Your task to perform on an android device: delete browsing data in the chrome app Image 0: 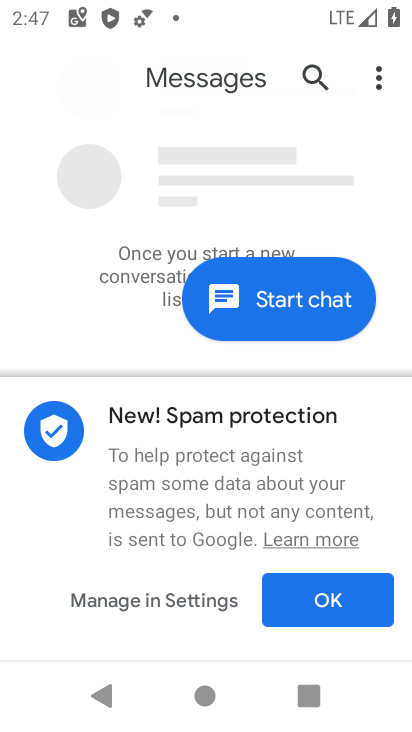
Step 0: press home button
Your task to perform on an android device: delete browsing data in the chrome app Image 1: 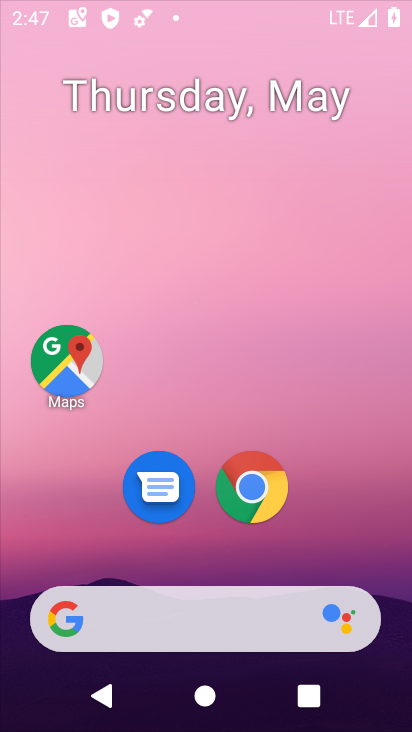
Step 1: drag from (140, 607) to (216, 157)
Your task to perform on an android device: delete browsing data in the chrome app Image 2: 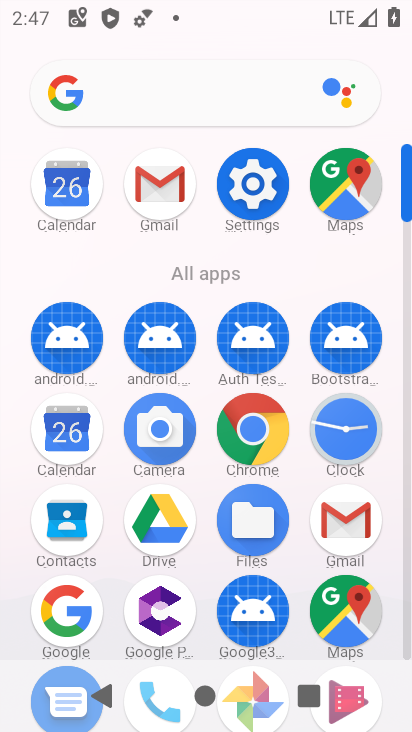
Step 2: click (252, 439)
Your task to perform on an android device: delete browsing data in the chrome app Image 3: 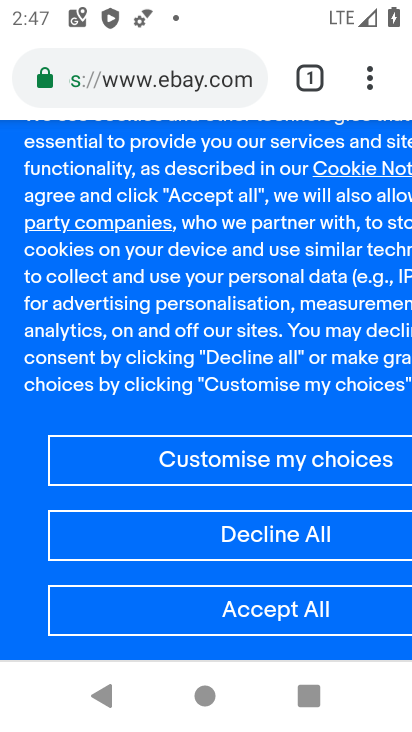
Step 3: click (372, 81)
Your task to perform on an android device: delete browsing data in the chrome app Image 4: 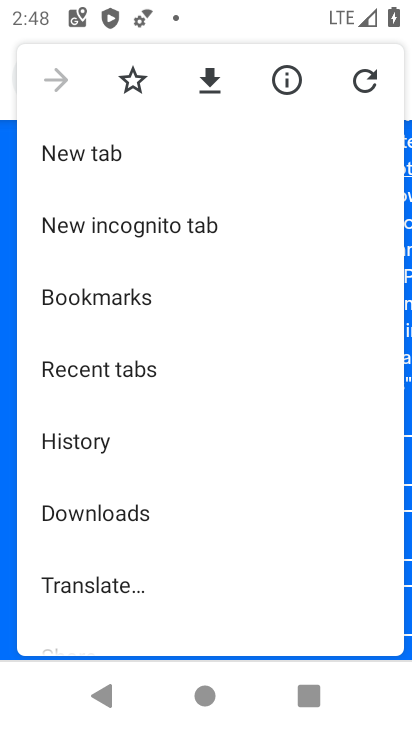
Step 4: drag from (219, 569) to (293, 160)
Your task to perform on an android device: delete browsing data in the chrome app Image 5: 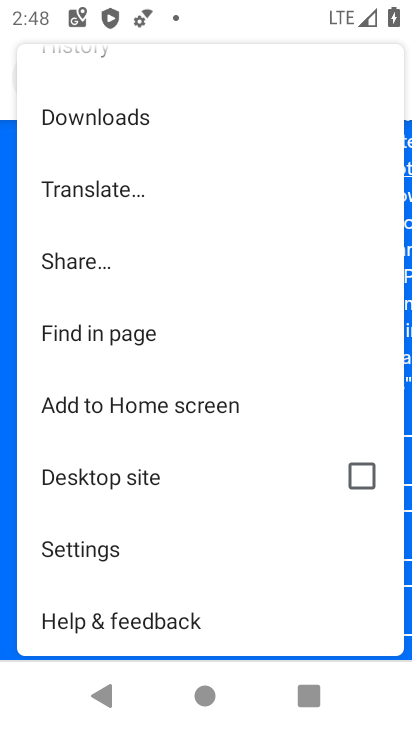
Step 5: drag from (179, 182) to (174, 585)
Your task to perform on an android device: delete browsing data in the chrome app Image 6: 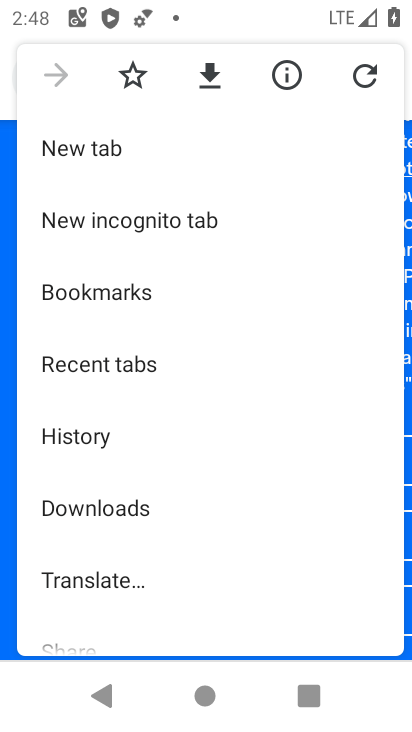
Step 6: click (100, 441)
Your task to perform on an android device: delete browsing data in the chrome app Image 7: 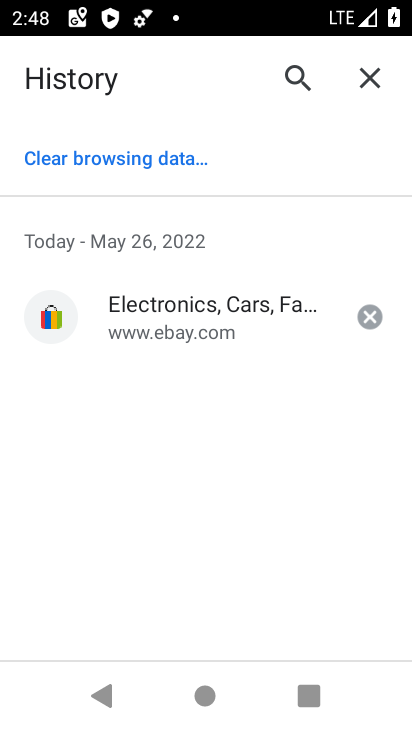
Step 7: click (155, 169)
Your task to perform on an android device: delete browsing data in the chrome app Image 8: 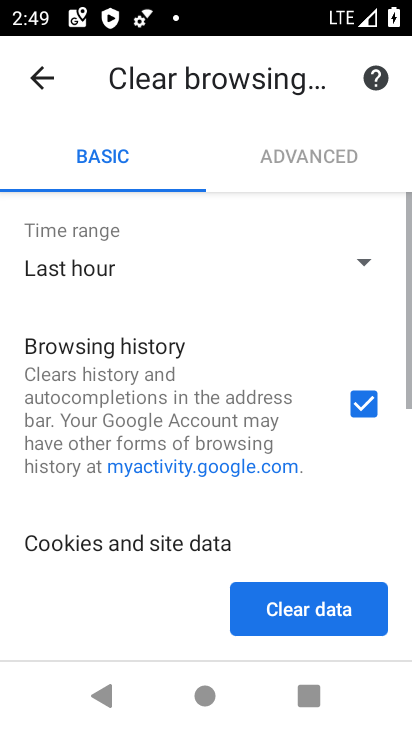
Step 8: click (320, 626)
Your task to perform on an android device: delete browsing data in the chrome app Image 9: 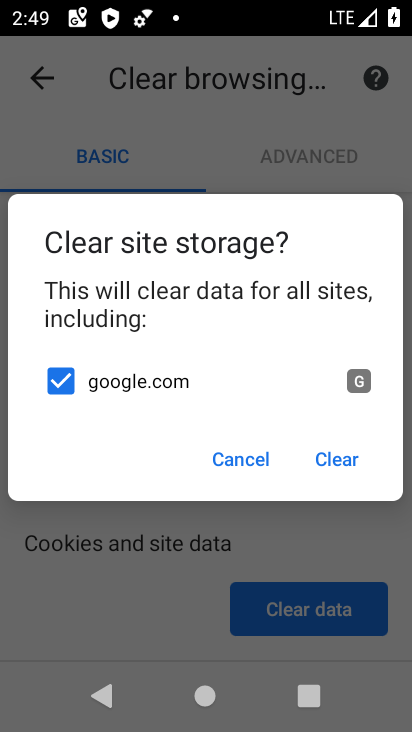
Step 9: click (344, 466)
Your task to perform on an android device: delete browsing data in the chrome app Image 10: 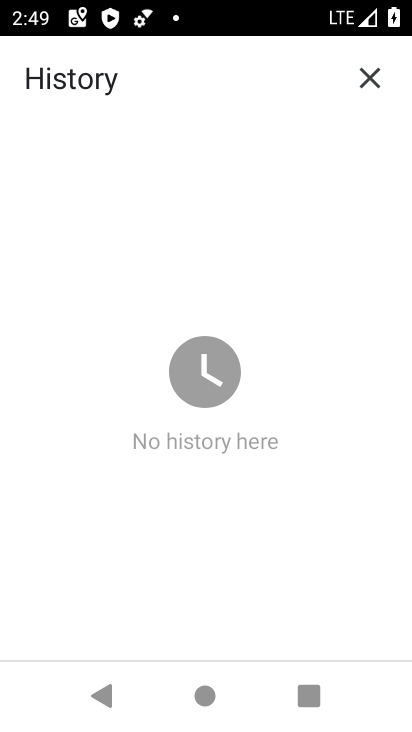
Step 10: task complete